Your task to perform on an android device: turn off data saver in the chrome app Image 0: 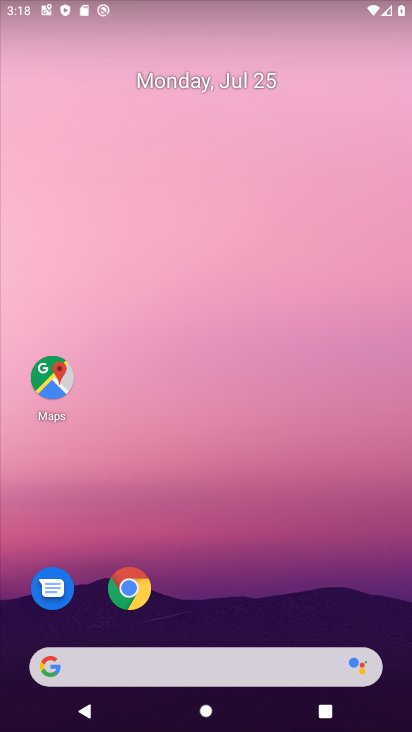
Step 0: drag from (336, 400) to (295, 0)
Your task to perform on an android device: turn off data saver in the chrome app Image 1: 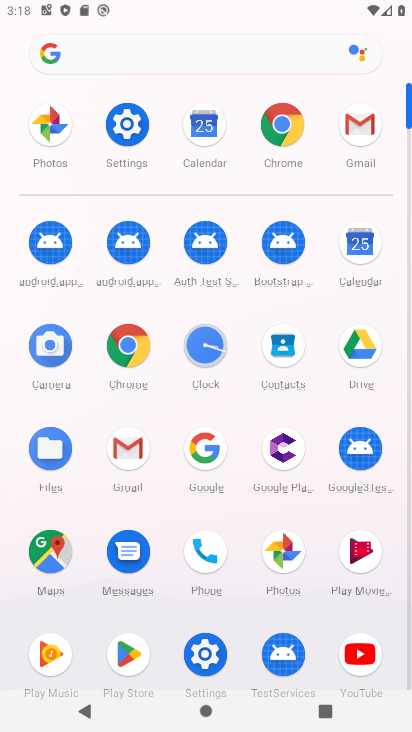
Step 1: click (285, 121)
Your task to perform on an android device: turn off data saver in the chrome app Image 2: 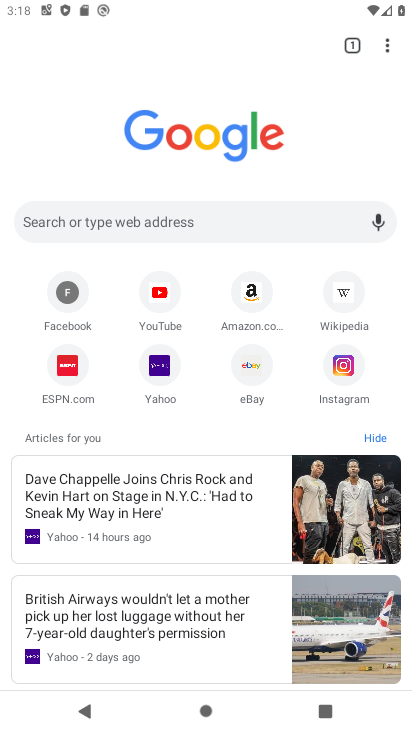
Step 2: drag from (393, 35) to (247, 370)
Your task to perform on an android device: turn off data saver in the chrome app Image 3: 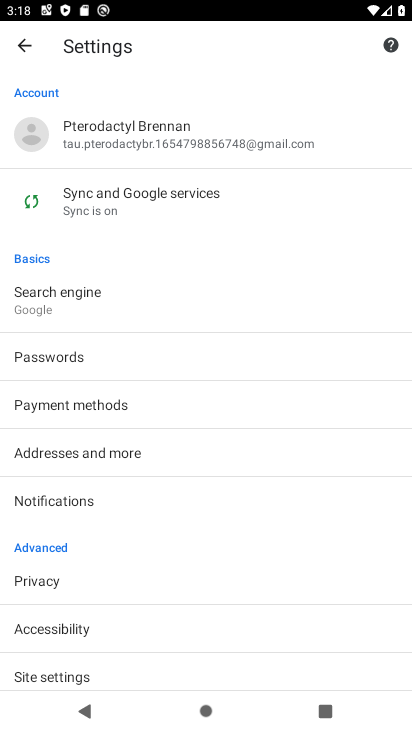
Step 3: drag from (195, 700) to (267, 245)
Your task to perform on an android device: turn off data saver in the chrome app Image 4: 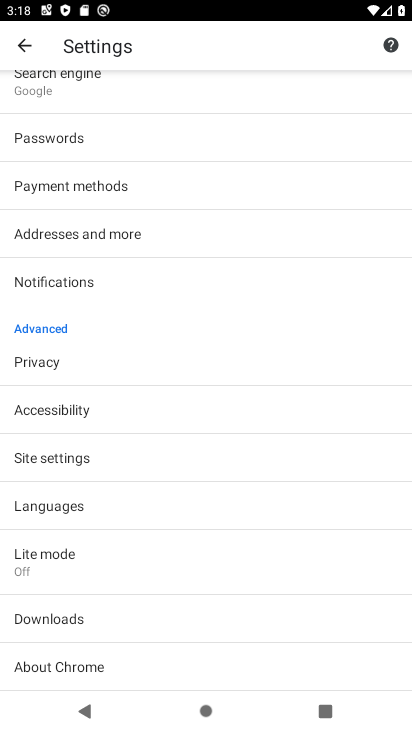
Step 4: click (52, 554)
Your task to perform on an android device: turn off data saver in the chrome app Image 5: 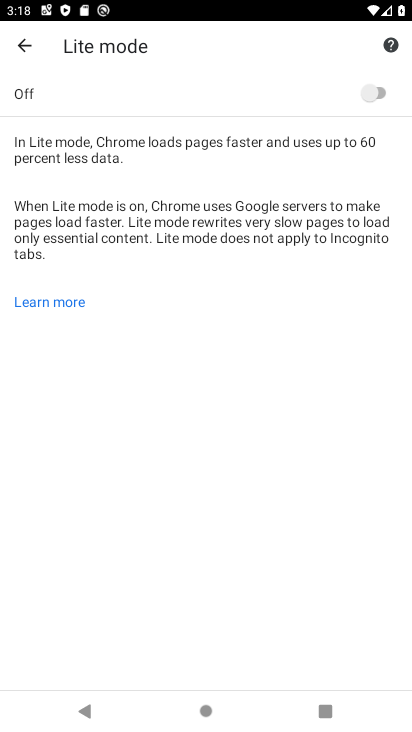
Step 5: task complete